Your task to perform on an android device: turn on bluetooth scan Image 0: 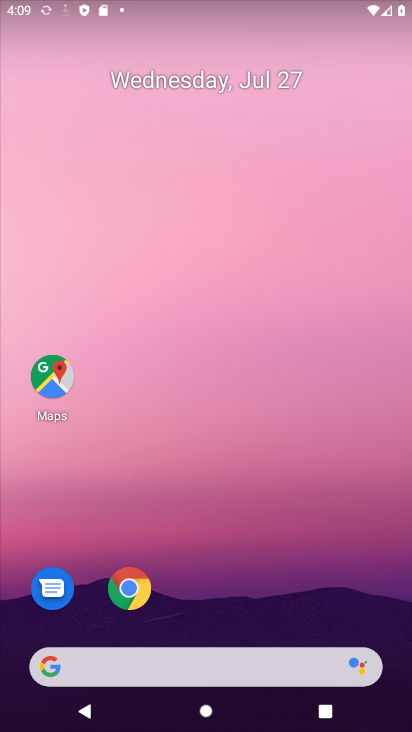
Step 0: drag from (235, 714) to (224, 169)
Your task to perform on an android device: turn on bluetooth scan Image 1: 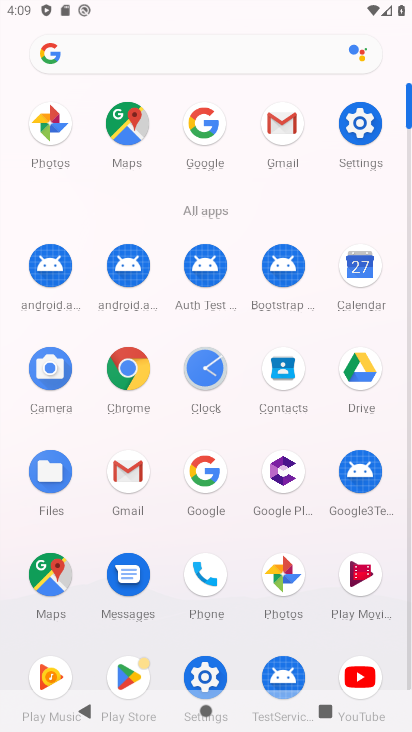
Step 1: click (370, 117)
Your task to perform on an android device: turn on bluetooth scan Image 2: 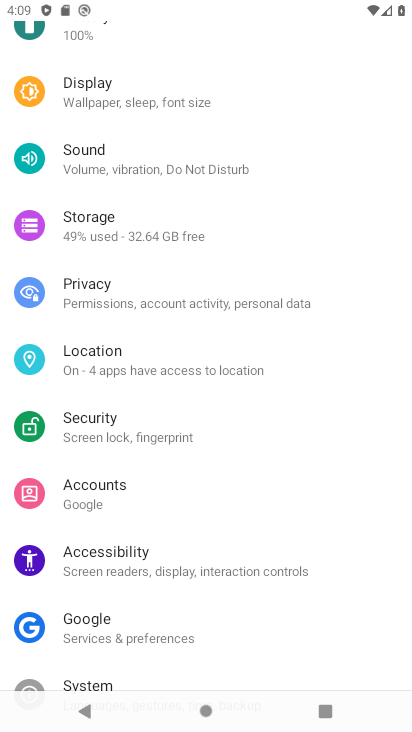
Step 2: drag from (148, 135) to (152, 468)
Your task to perform on an android device: turn on bluetooth scan Image 3: 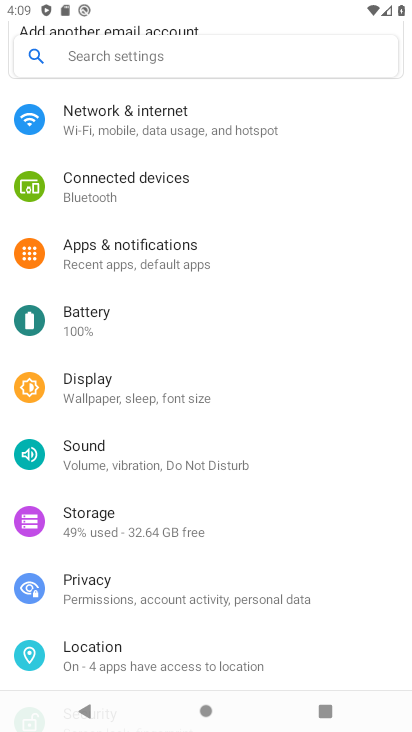
Step 3: click (101, 652)
Your task to perform on an android device: turn on bluetooth scan Image 4: 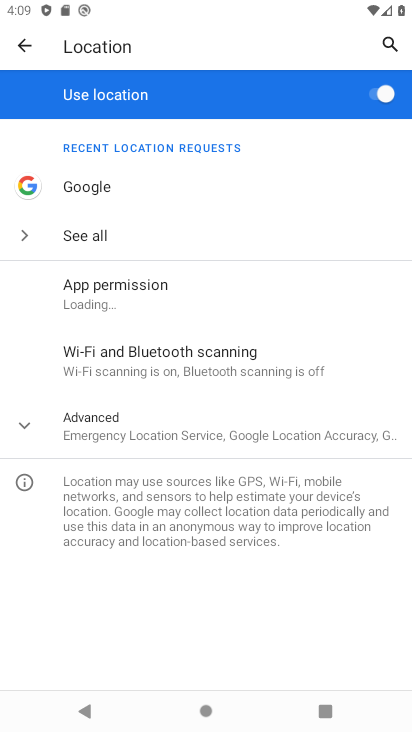
Step 4: click (223, 350)
Your task to perform on an android device: turn on bluetooth scan Image 5: 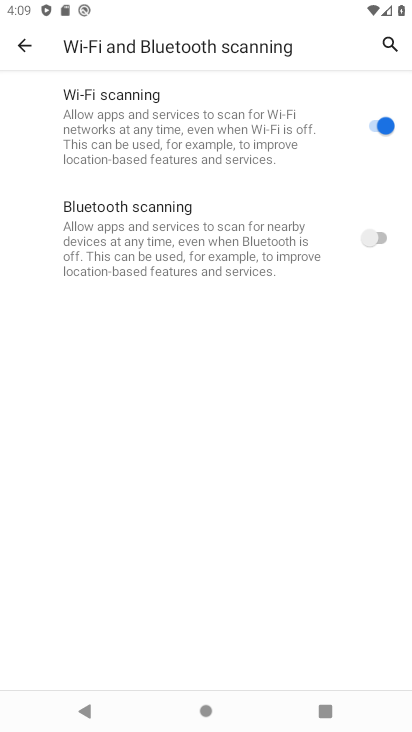
Step 5: click (387, 239)
Your task to perform on an android device: turn on bluetooth scan Image 6: 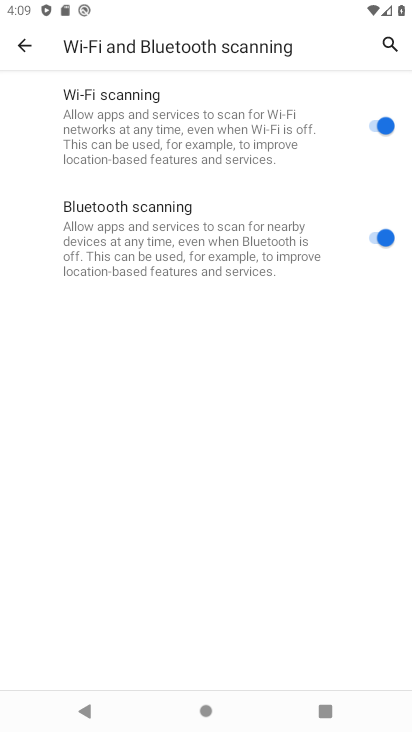
Step 6: task complete